Your task to perform on an android device: Open the Play Movies app and select the watchlist tab. Image 0: 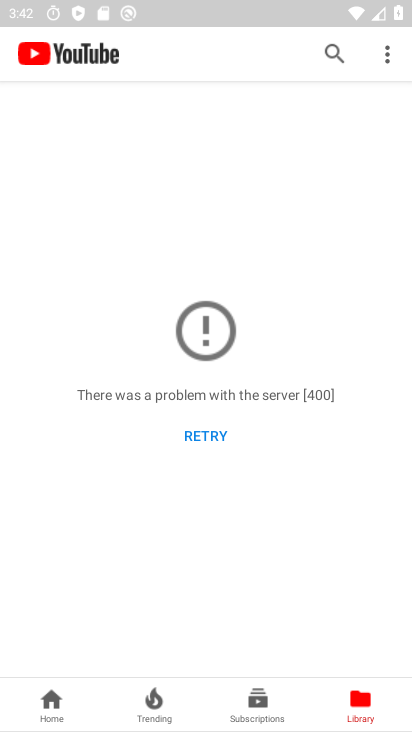
Step 0: press back button
Your task to perform on an android device: Open the Play Movies app and select the watchlist tab. Image 1: 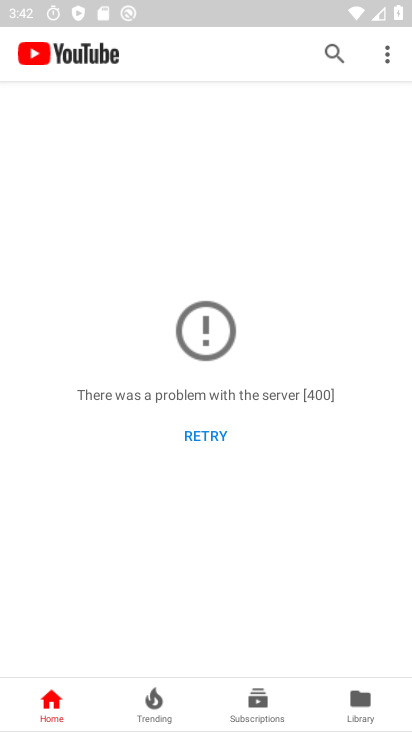
Step 1: press home button
Your task to perform on an android device: Open the Play Movies app and select the watchlist tab. Image 2: 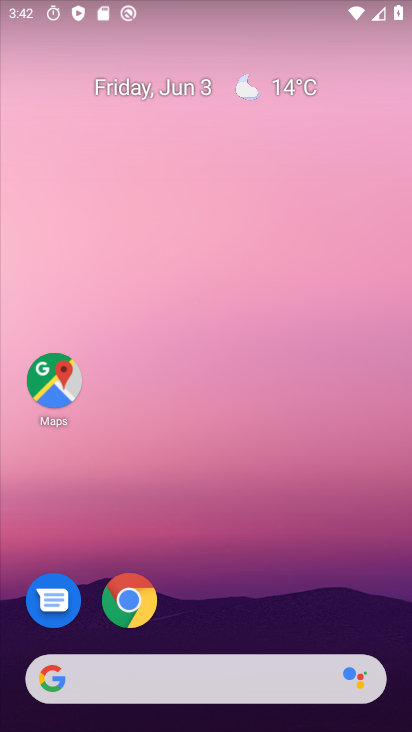
Step 2: drag from (221, 558) to (270, 29)
Your task to perform on an android device: Open the Play Movies app and select the watchlist tab. Image 3: 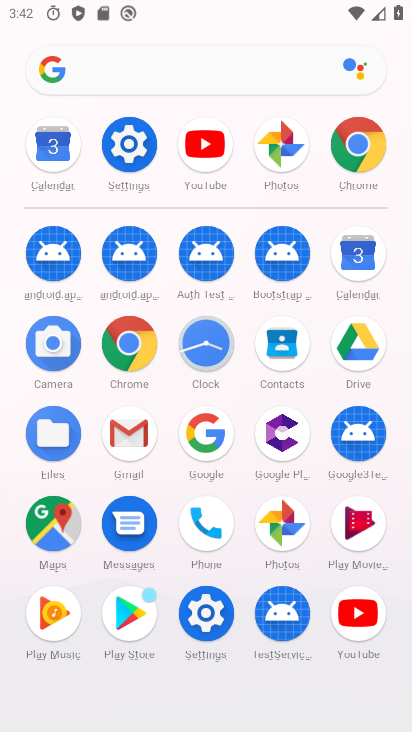
Step 3: drag from (14, 483) to (30, 168)
Your task to perform on an android device: Open the Play Movies app and select the watchlist tab. Image 4: 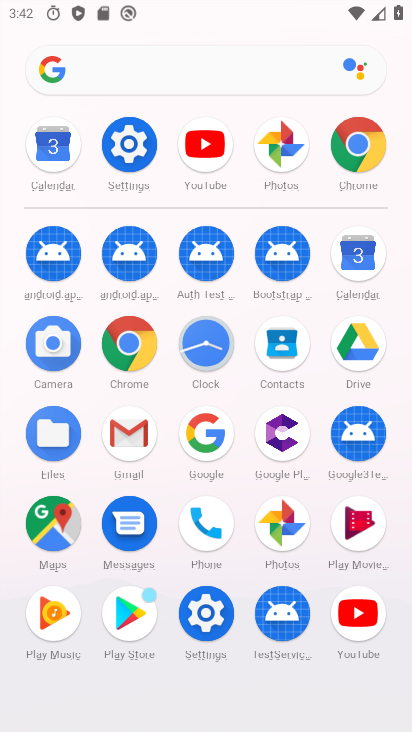
Step 4: drag from (13, 538) to (11, 171)
Your task to perform on an android device: Open the Play Movies app and select the watchlist tab. Image 5: 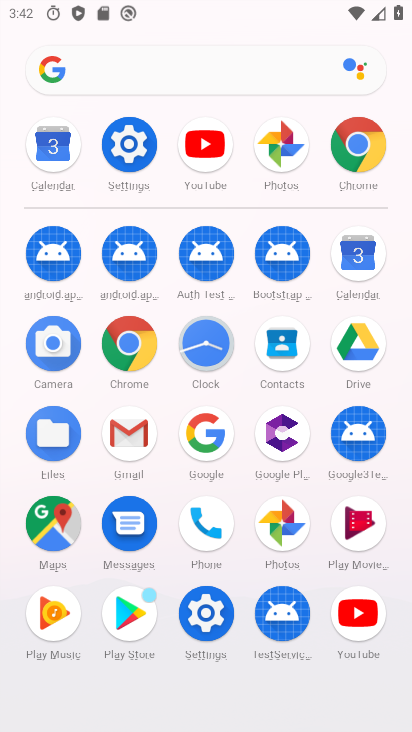
Step 5: click (126, 612)
Your task to perform on an android device: Open the Play Movies app and select the watchlist tab. Image 6: 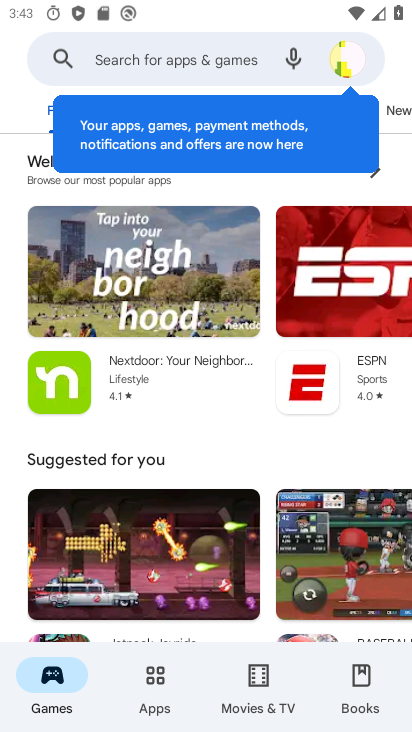
Step 6: press back button
Your task to perform on an android device: Open the Play Movies app and select the watchlist tab. Image 7: 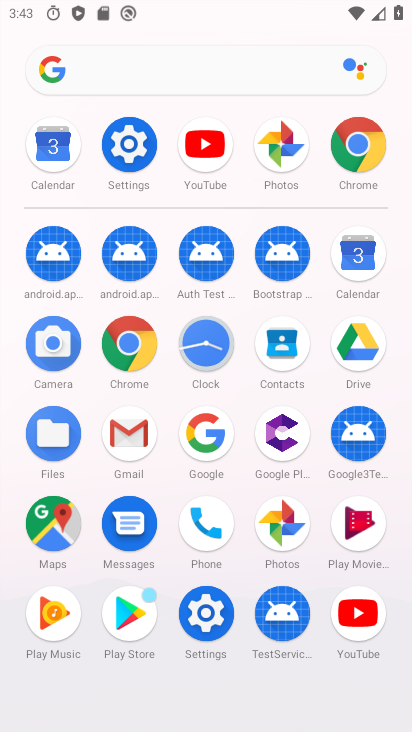
Step 7: click (364, 515)
Your task to perform on an android device: Open the Play Movies app and select the watchlist tab. Image 8: 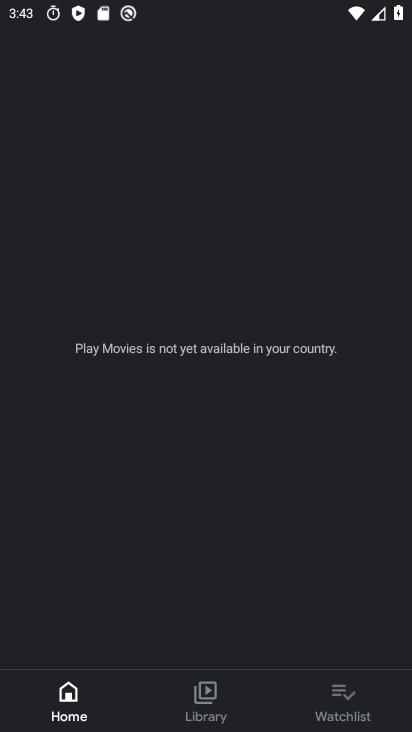
Step 8: click (360, 686)
Your task to perform on an android device: Open the Play Movies app and select the watchlist tab. Image 9: 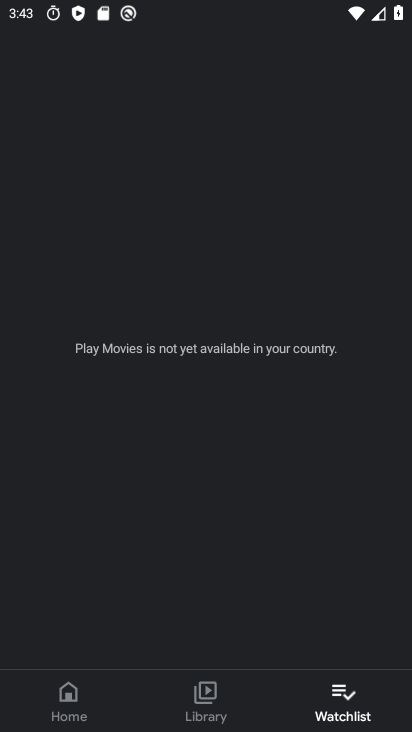
Step 9: task complete